Your task to perform on an android device: move a message to another label in the gmail app Image 0: 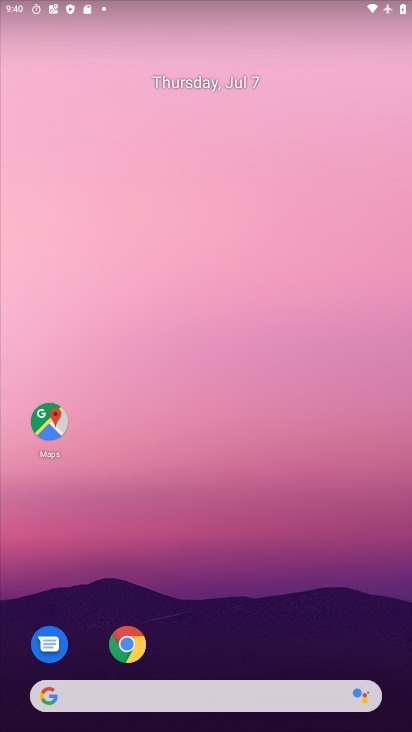
Step 0: drag from (308, 614) to (260, 160)
Your task to perform on an android device: move a message to another label in the gmail app Image 1: 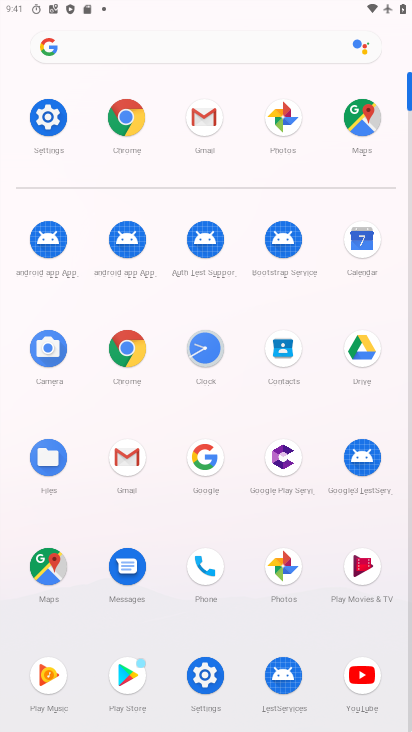
Step 1: click (205, 118)
Your task to perform on an android device: move a message to another label in the gmail app Image 2: 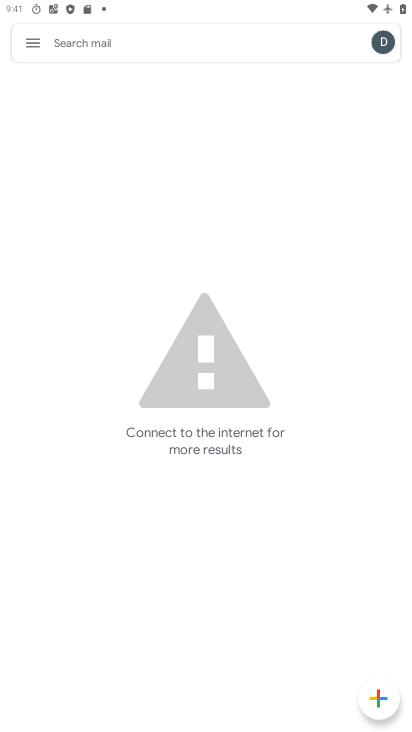
Step 2: click (34, 40)
Your task to perform on an android device: move a message to another label in the gmail app Image 3: 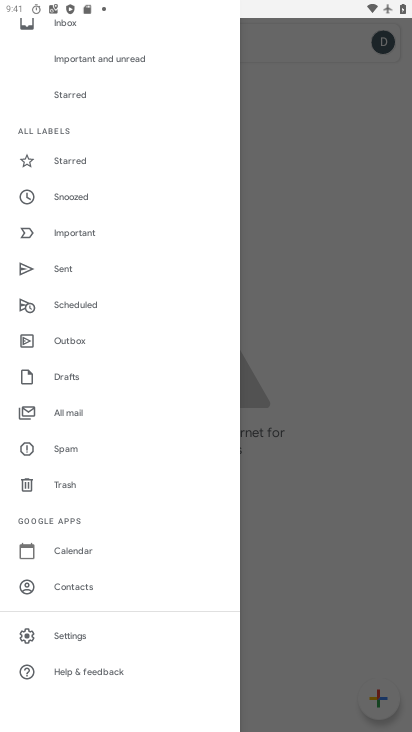
Step 3: click (75, 413)
Your task to perform on an android device: move a message to another label in the gmail app Image 4: 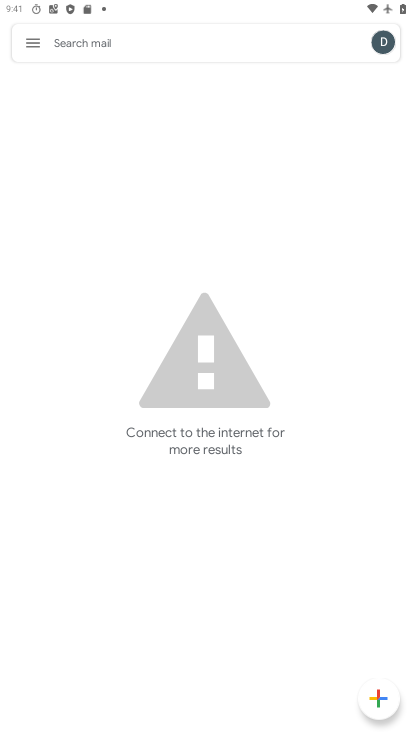
Step 4: task complete